Your task to perform on an android device: turn on data saver in the chrome app Image 0: 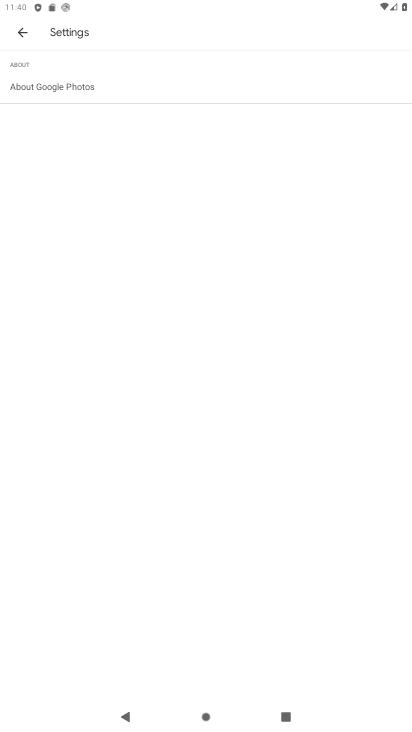
Step 0: press home button
Your task to perform on an android device: turn on data saver in the chrome app Image 1: 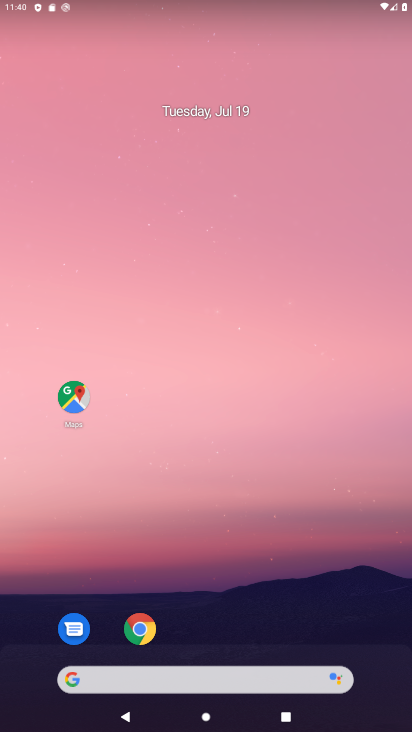
Step 1: click (139, 628)
Your task to perform on an android device: turn on data saver in the chrome app Image 2: 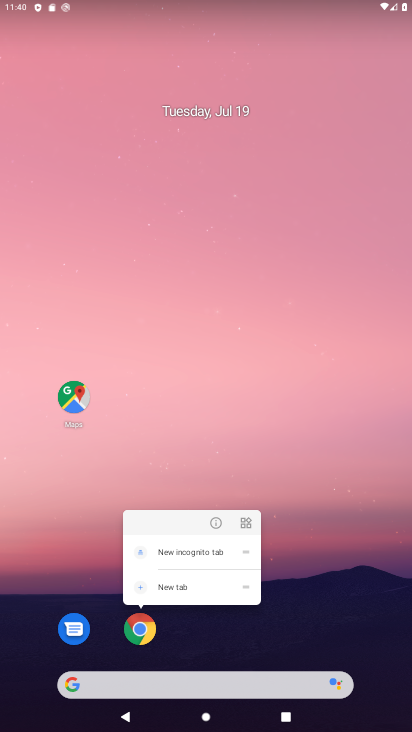
Step 2: click (144, 625)
Your task to perform on an android device: turn on data saver in the chrome app Image 3: 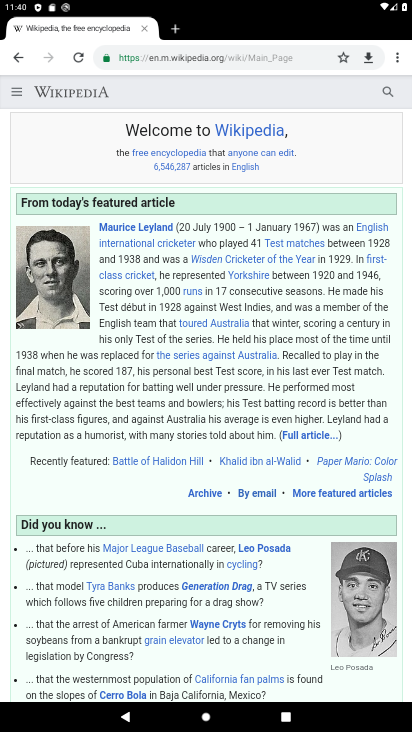
Step 3: click (401, 58)
Your task to perform on an android device: turn on data saver in the chrome app Image 4: 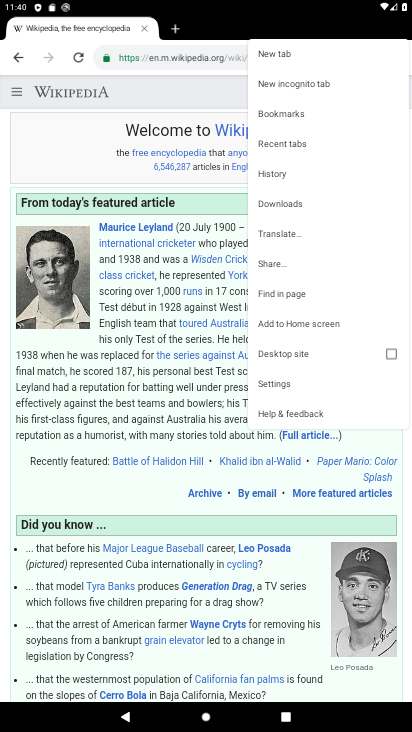
Step 4: click (276, 379)
Your task to perform on an android device: turn on data saver in the chrome app Image 5: 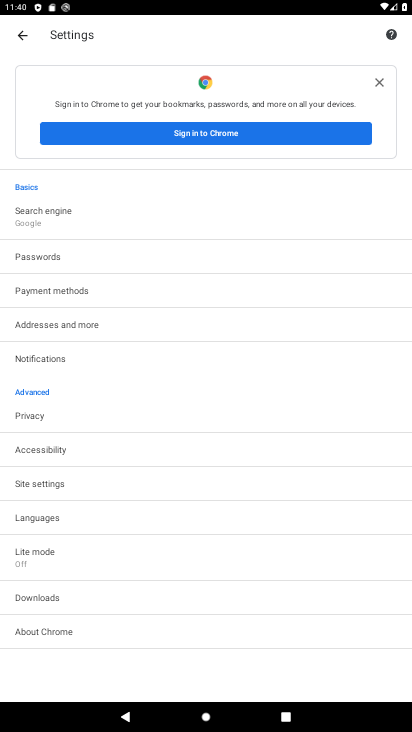
Step 5: click (43, 548)
Your task to perform on an android device: turn on data saver in the chrome app Image 6: 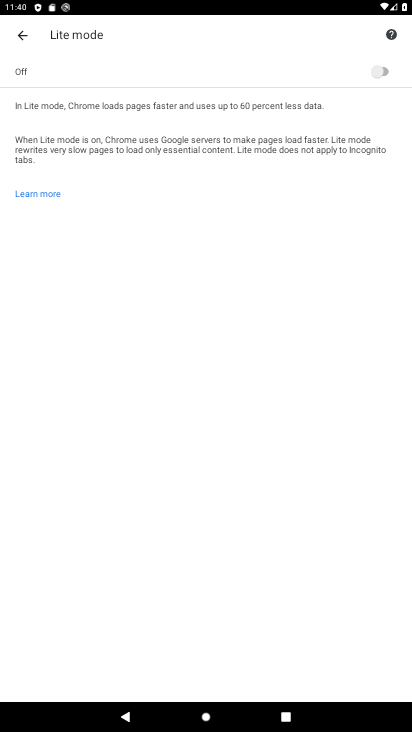
Step 6: click (379, 74)
Your task to perform on an android device: turn on data saver in the chrome app Image 7: 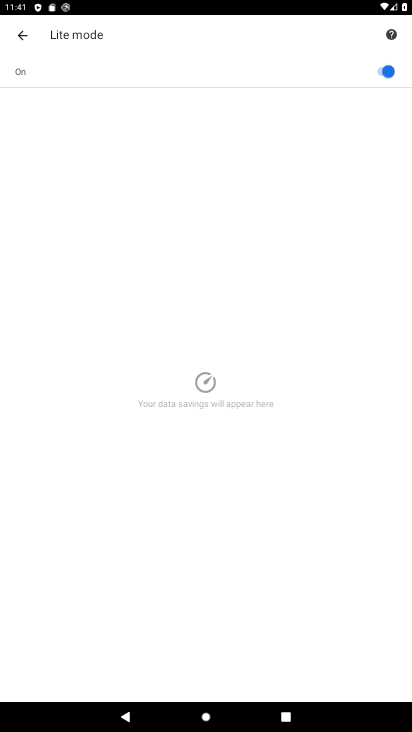
Step 7: task complete